Your task to perform on an android device: Open CNN.com Image 0: 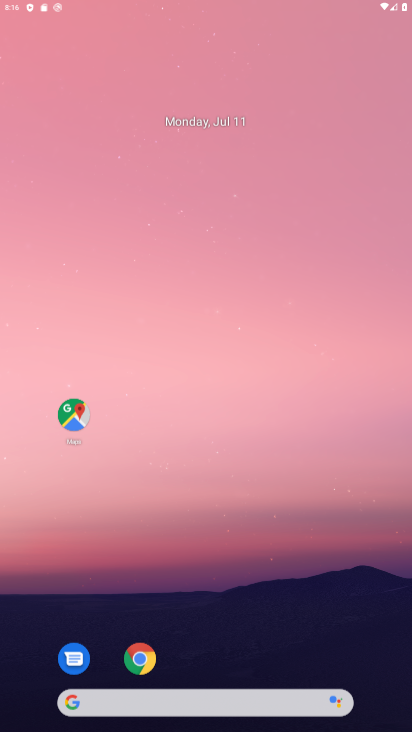
Step 0: click (274, 3)
Your task to perform on an android device: Open CNN.com Image 1: 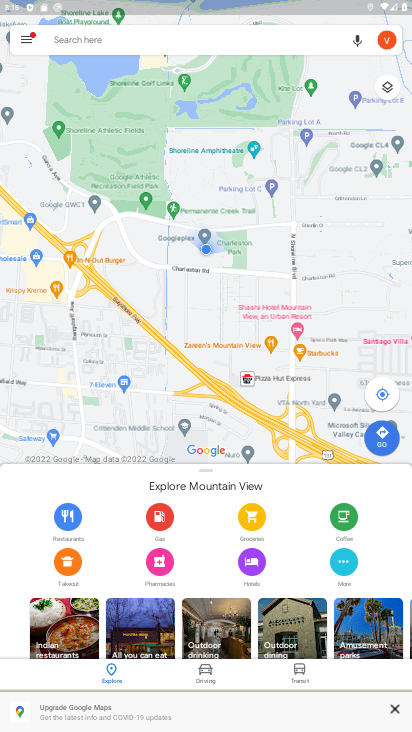
Step 1: press home button
Your task to perform on an android device: Open CNN.com Image 2: 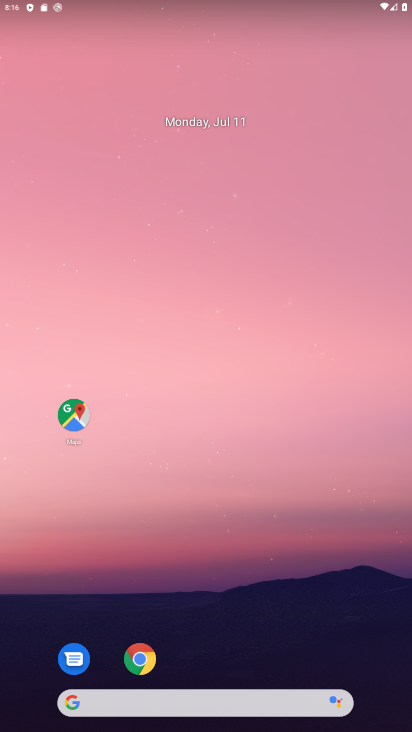
Step 2: click (112, 712)
Your task to perform on an android device: Open CNN.com Image 3: 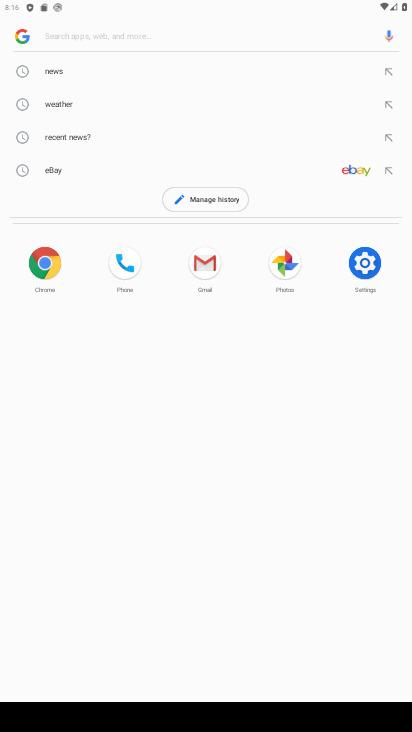
Step 3: type "CNN.com"
Your task to perform on an android device: Open CNN.com Image 4: 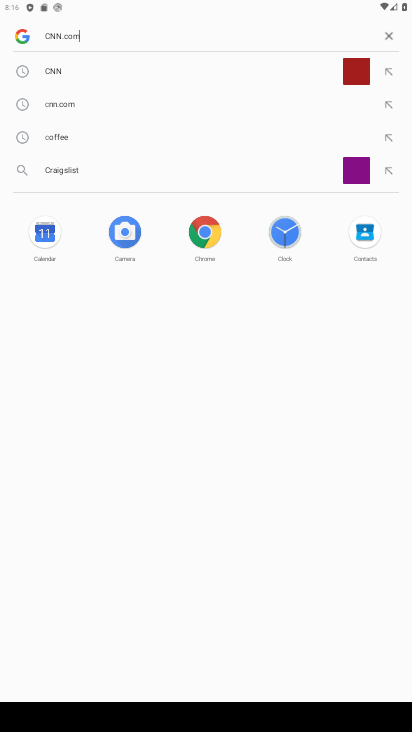
Step 4: type ""
Your task to perform on an android device: Open CNN.com Image 5: 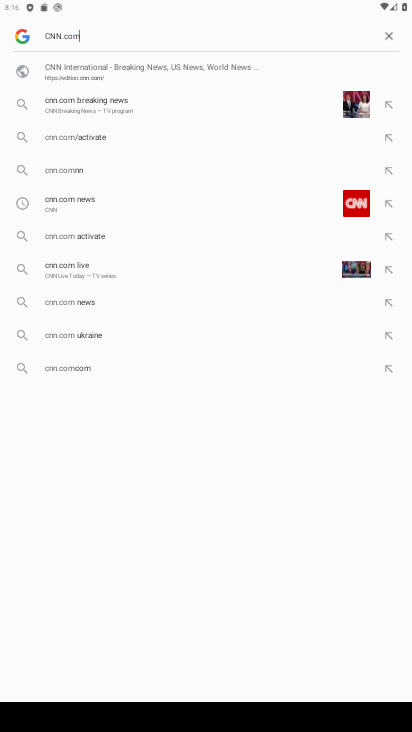
Step 5: type ""
Your task to perform on an android device: Open CNN.com Image 6: 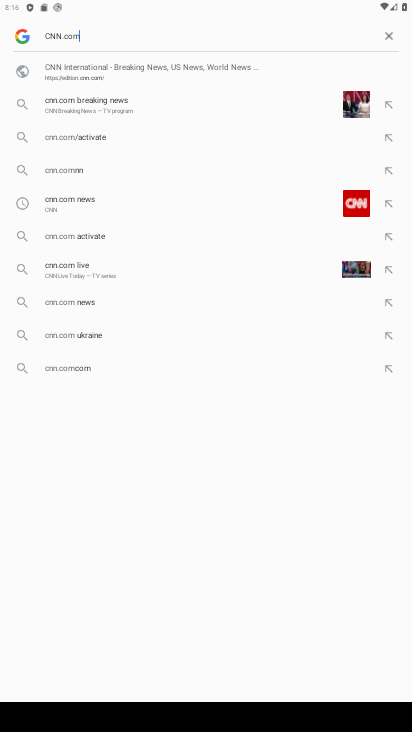
Step 6: type ""
Your task to perform on an android device: Open CNN.com Image 7: 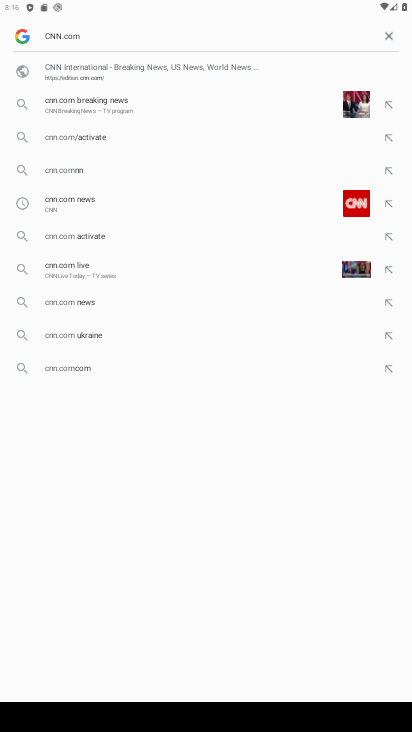
Step 7: type ""
Your task to perform on an android device: Open CNN.com Image 8: 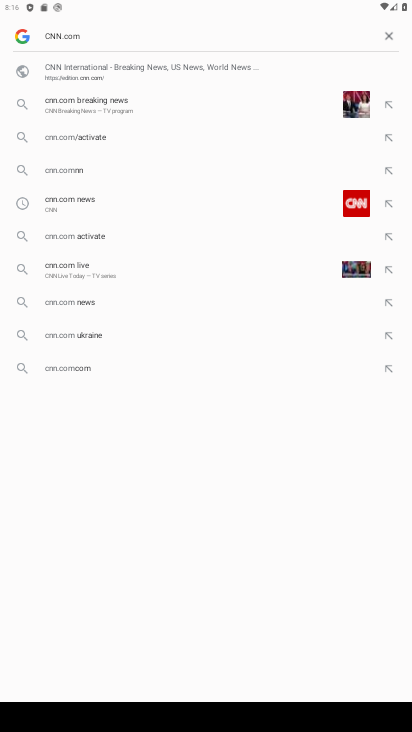
Step 8: task complete